Your task to perform on an android device: choose inbox layout in the gmail app Image 0: 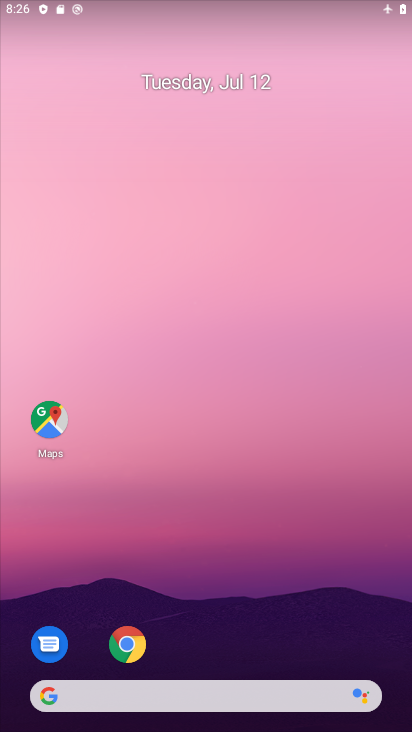
Step 0: drag from (205, 648) to (191, 231)
Your task to perform on an android device: choose inbox layout in the gmail app Image 1: 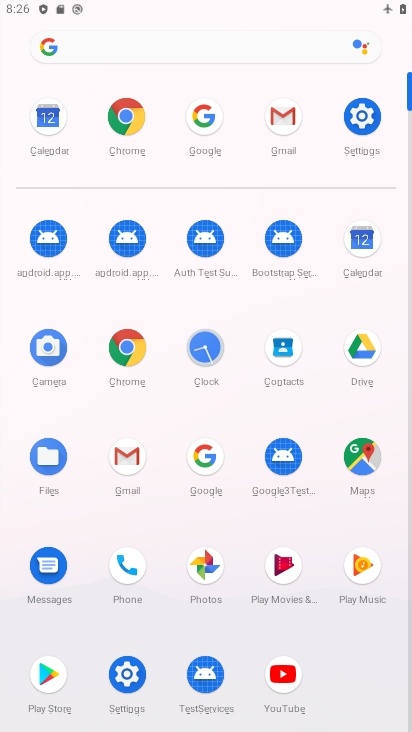
Step 1: click (266, 129)
Your task to perform on an android device: choose inbox layout in the gmail app Image 2: 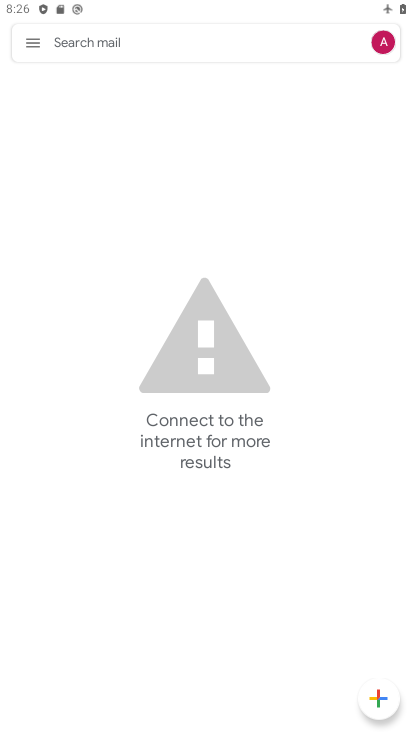
Step 2: click (27, 47)
Your task to perform on an android device: choose inbox layout in the gmail app Image 3: 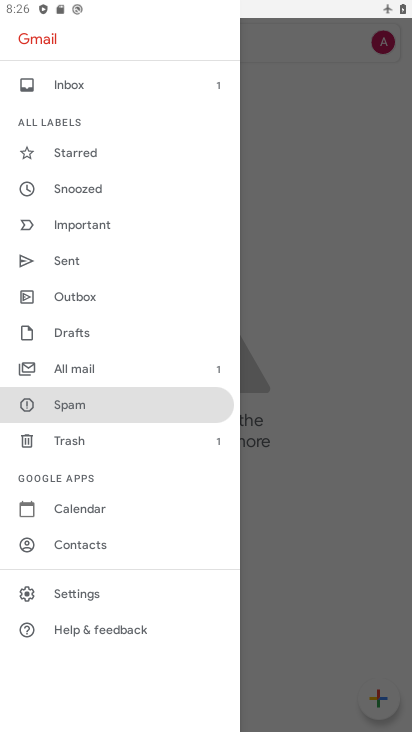
Step 3: click (79, 580)
Your task to perform on an android device: choose inbox layout in the gmail app Image 4: 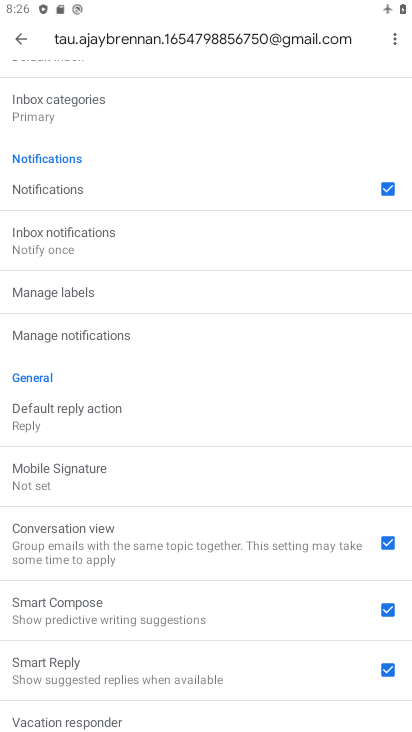
Step 4: drag from (149, 191) to (148, 364)
Your task to perform on an android device: choose inbox layout in the gmail app Image 5: 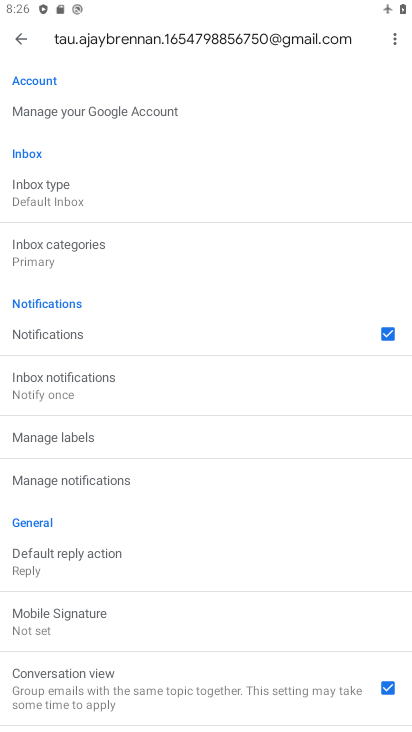
Step 5: click (71, 208)
Your task to perform on an android device: choose inbox layout in the gmail app Image 6: 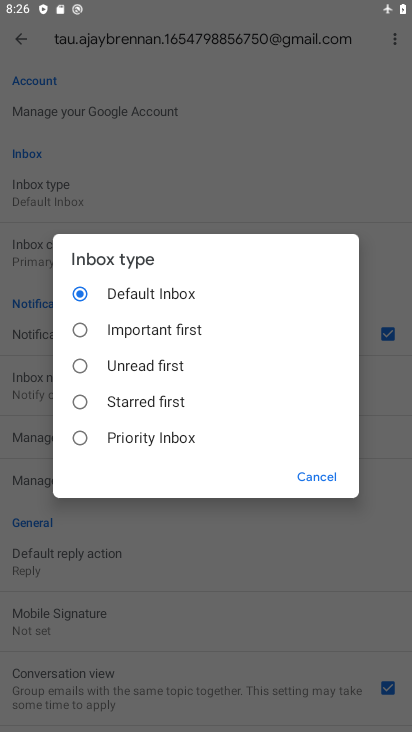
Step 6: click (98, 425)
Your task to perform on an android device: choose inbox layout in the gmail app Image 7: 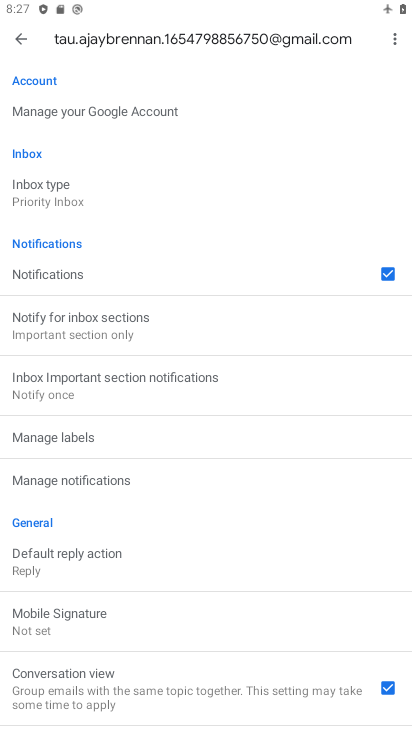
Step 7: task complete